Your task to perform on an android device: Search for vegetarian restaurants on Maps Image 0: 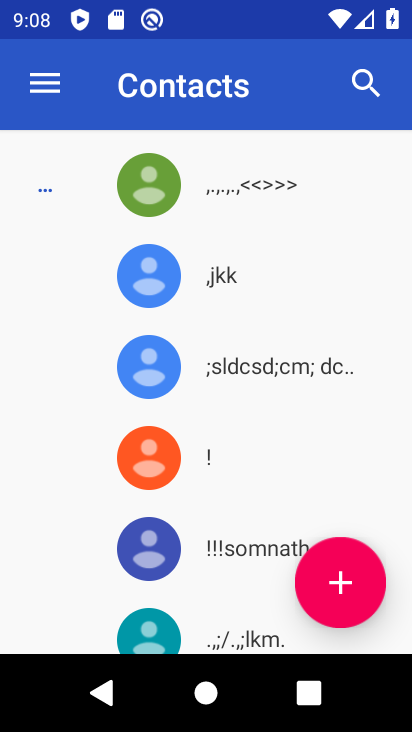
Step 0: press home button
Your task to perform on an android device: Search for vegetarian restaurants on Maps Image 1: 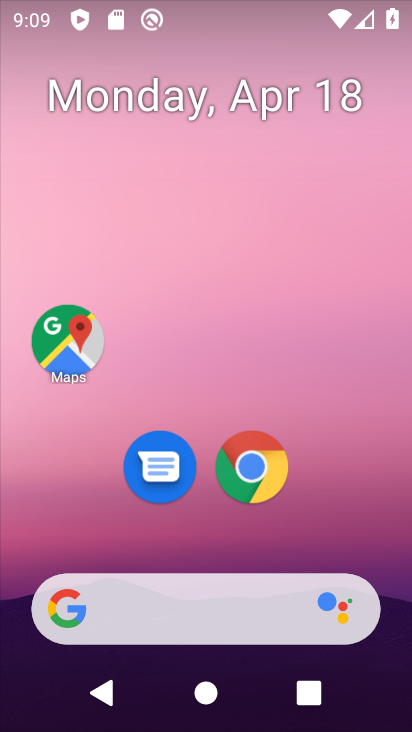
Step 1: click (50, 339)
Your task to perform on an android device: Search for vegetarian restaurants on Maps Image 2: 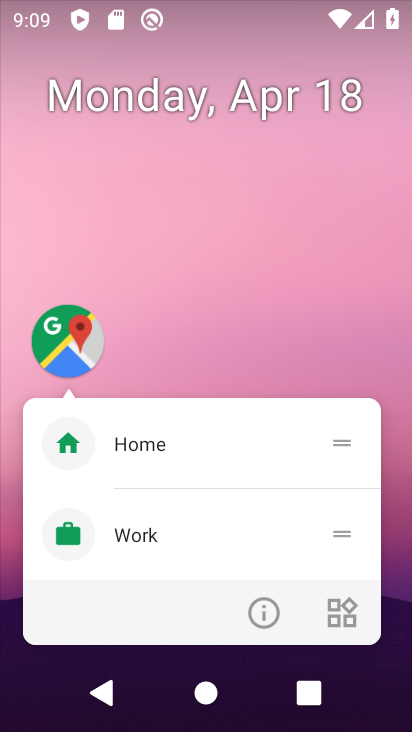
Step 2: click (54, 340)
Your task to perform on an android device: Search for vegetarian restaurants on Maps Image 3: 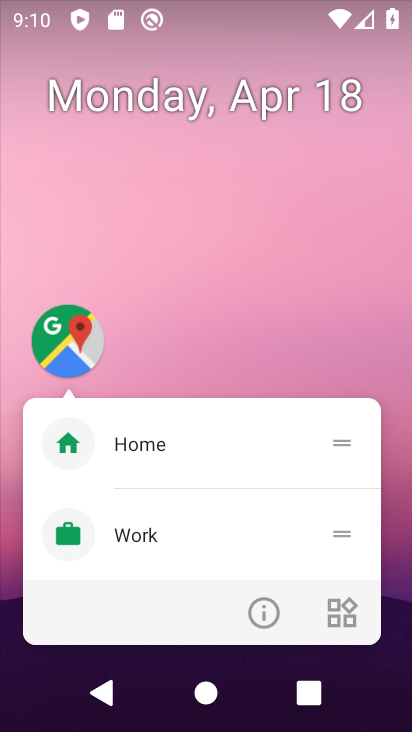
Step 3: click (63, 361)
Your task to perform on an android device: Search for vegetarian restaurants on Maps Image 4: 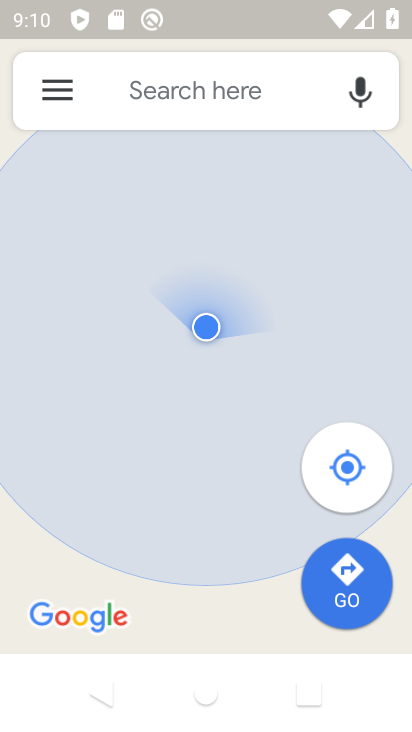
Step 4: click (165, 107)
Your task to perform on an android device: Search for vegetarian restaurants on Maps Image 5: 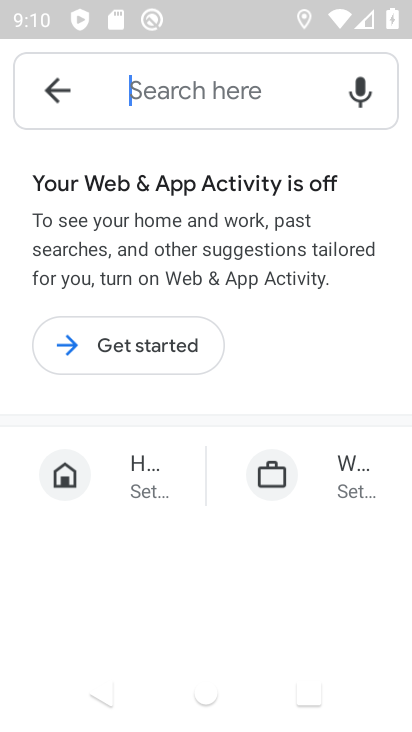
Step 5: click (180, 352)
Your task to perform on an android device: Search for vegetarian restaurants on Maps Image 6: 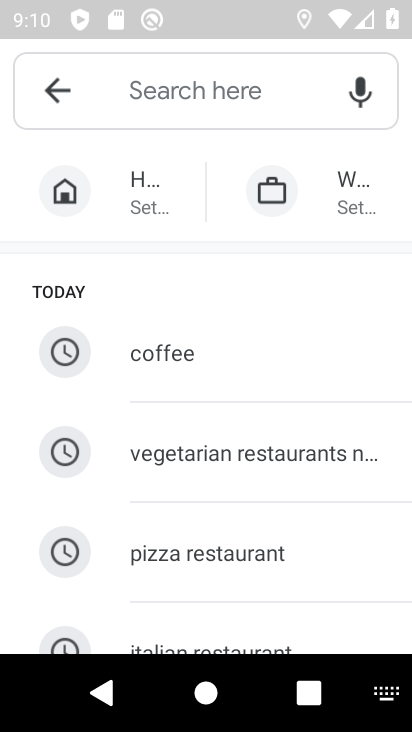
Step 6: click (208, 460)
Your task to perform on an android device: Search for vegetarian restaurants on Maps Image 7: 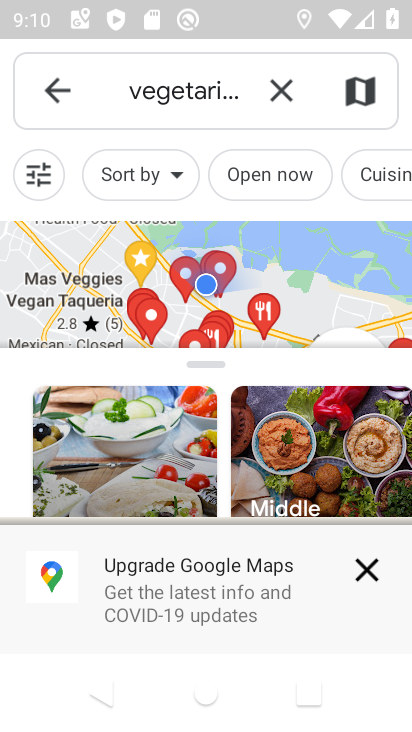
Step 7: task complete